Your task to perform on an android device: toggle pop-ups in chrome Image 0: 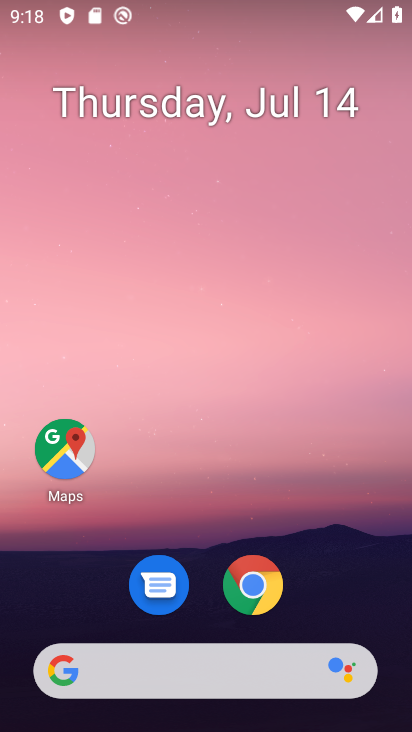
Step 0: click (237, 590)
Your task to perform on an android device: toggle pop-ups in chrome Image 1: 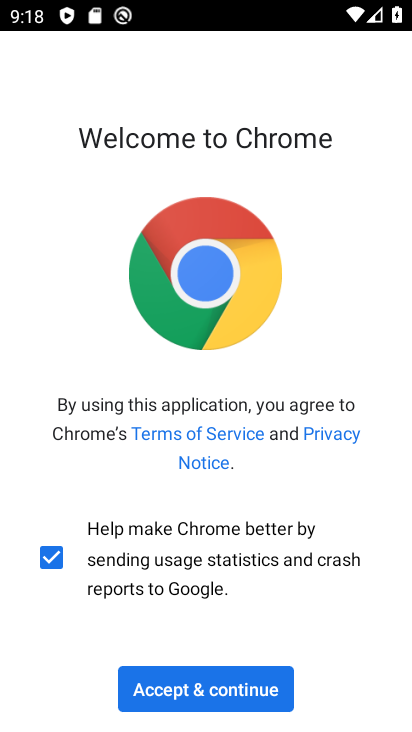
Step 1: click (216, 699)
Your task to perform on an android device: toggle pop-ups in chrome Image 2: 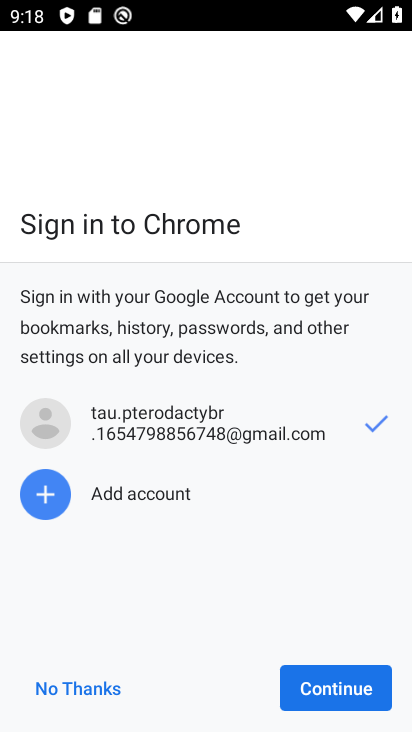
Step 2: click (305, 693)
Your task to perform on an android device: toggle pop-ups in chrome Image 3: 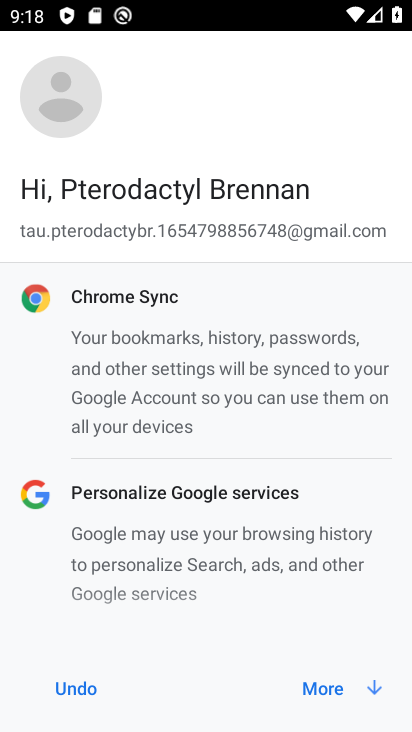
Step 3: click (305, 693)
Your task to perform on an android device: toggle pop-ups in chrome Image 4: 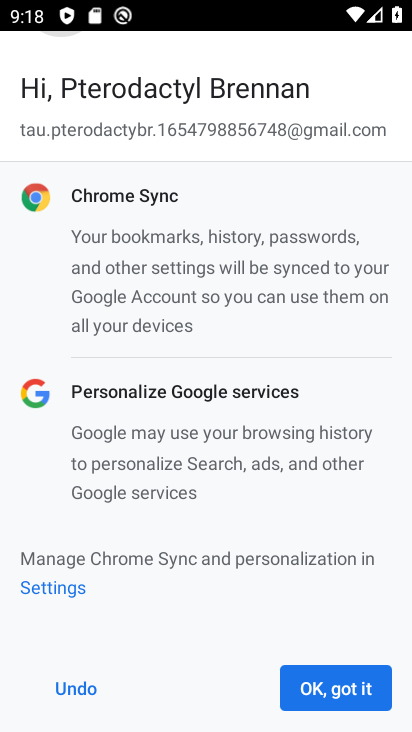
Step 4: click (305, 693)
Your task to perform on an android device: toggle pop-ups in chrome Image 5: 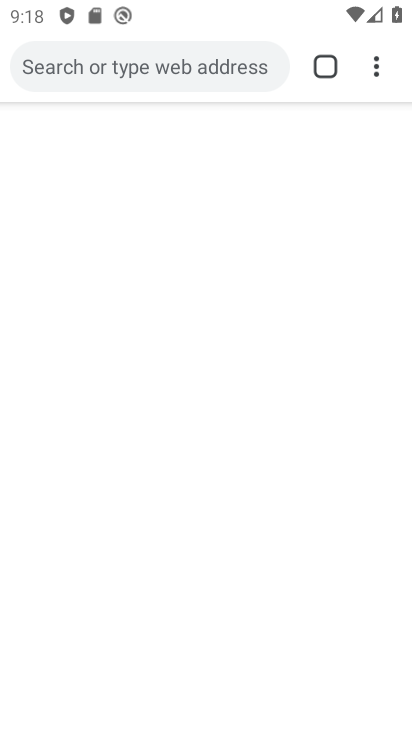
Step 5: click (381, 75)
Your task to perform on an android device: toggle pop-ups in chrome Image 6: 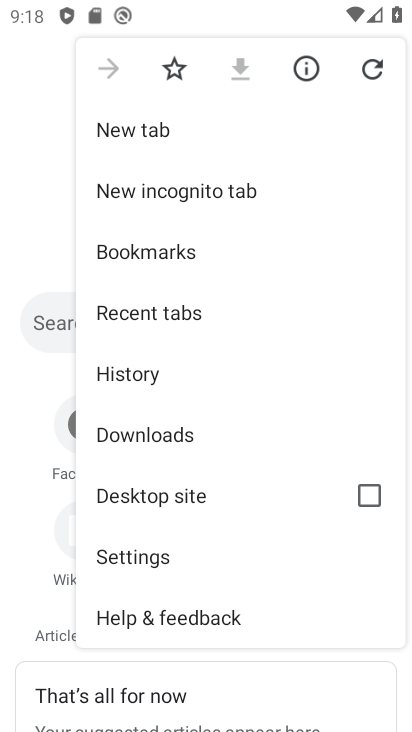
Step 6: click (164, 561)
Your task to perform on an android device: toggle pop-ups in chrome Image 7: 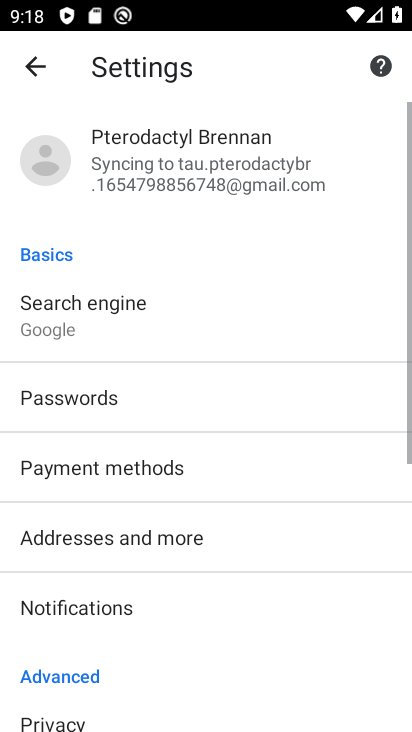
Step 7: drag from (164, 561) to (139, 151)
Your task to perform on an android device: toggle pop-ups in chrome Image 8: 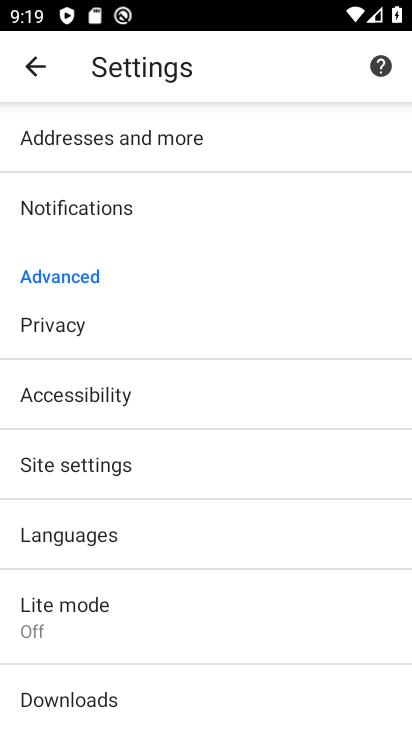
Step 8: click (86, 457)
Your task to perform on an android device: toggle pop-ups in chrome Image 9: 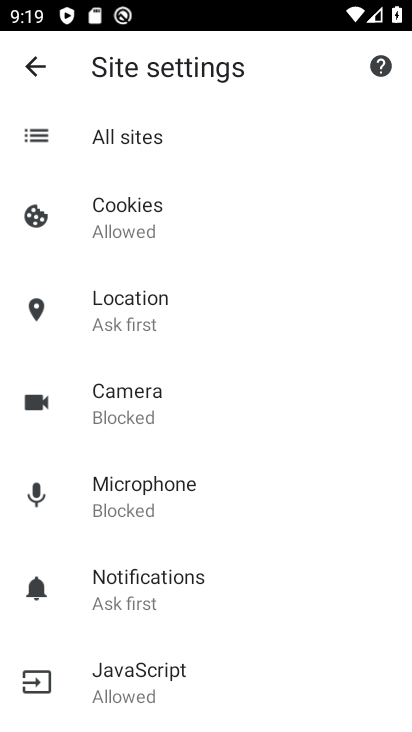
Step 9: drag from (210, 578) to (159, 215)
Your task to perform on an android device: toggle pop-ups in chrome Image 10: 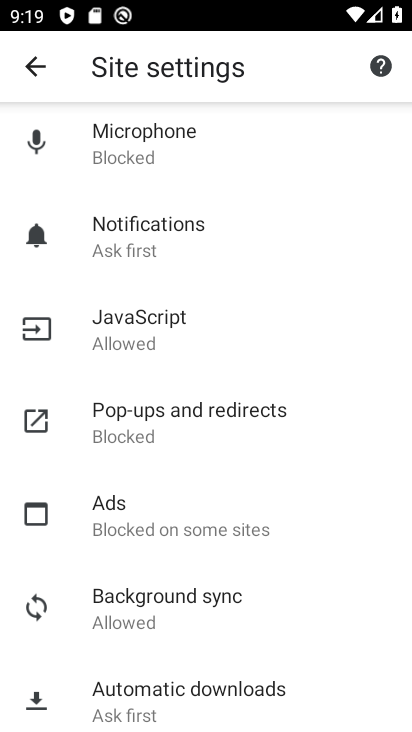
Step 10: click (184, 408)
Your task to perform on an android device: toggle pop-ups in chrome Image 11: 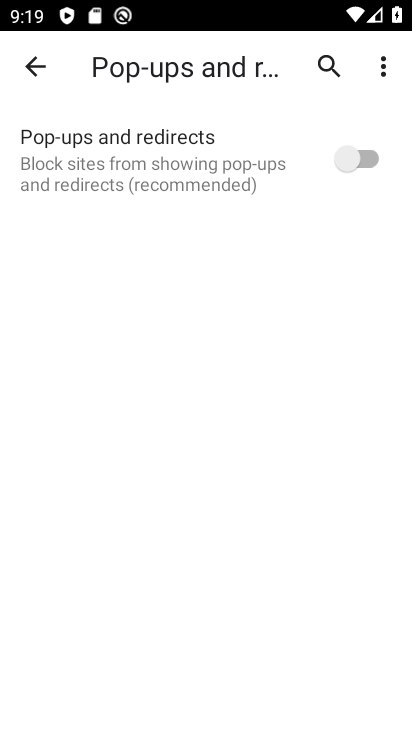
Step 11: click (346, 164)
Your task to perform on an android device: toggle pop-ups in chrome Image 12: 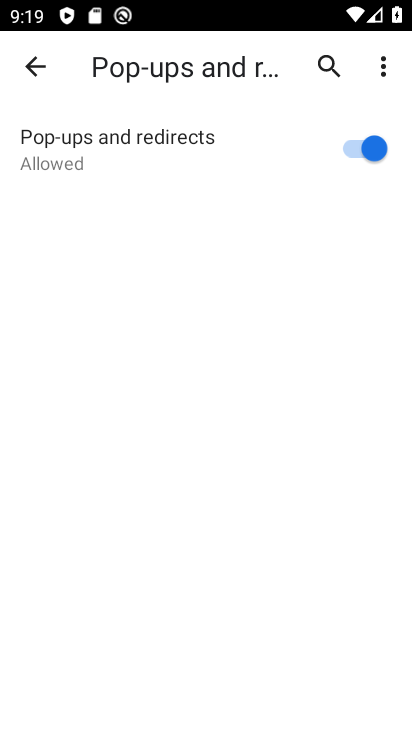
Step 12: task complete